Your task to perform on an android device: change keyboard looks Image 0: 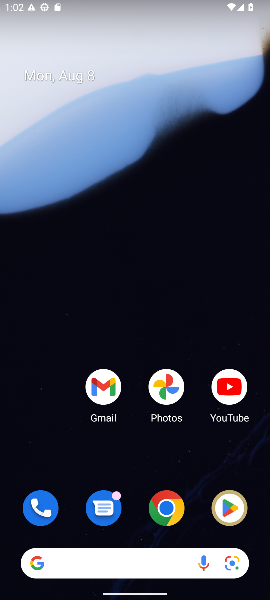
Step 0: drag from (130, 357) to (120, 69)
Your task to perform on an android device: change keyboard looks Image 1: 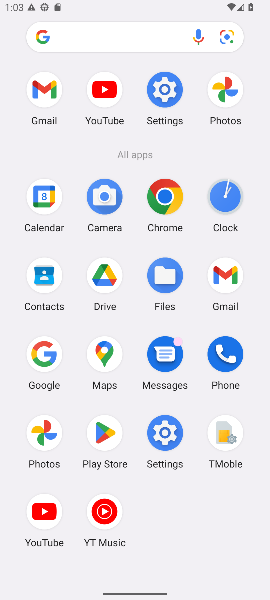
Step 1: click (165, 442)
Your task to perform on an android device: change keyboard looks Image 2: 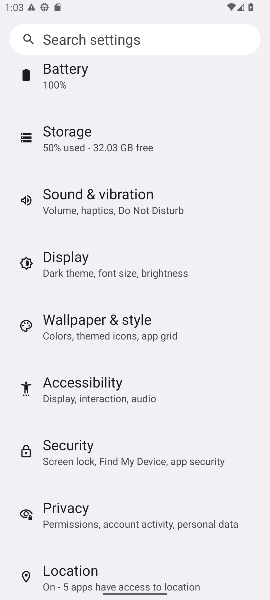
Step 2: drag from (84, 520) to (102, 289)
Your task to perform on an android device: change keyboard looks Image 3: 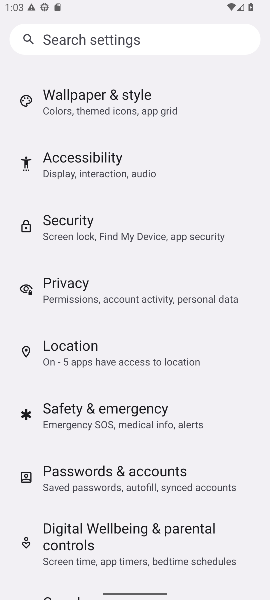
Step 3: drag from (155, 552) to (151, 246)
Your task to perform on an android device: change keyboard looks Image 4: 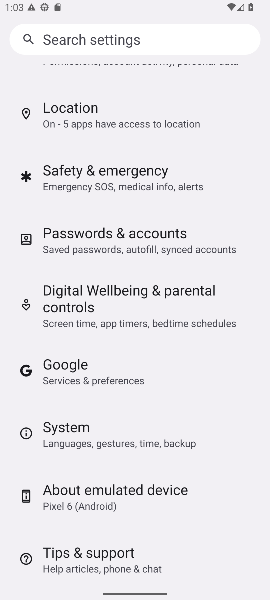
Step 4: click (75, 528)
Your task to perform on an android device: change keyboard looks Image 5: 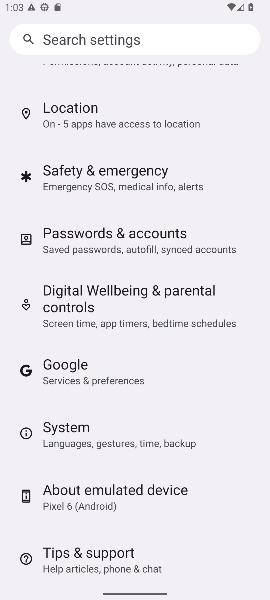
Step 5: drag from (73, 162) to (89, 352)
Your task to perform on an android device: change keyboard looks Image 6: 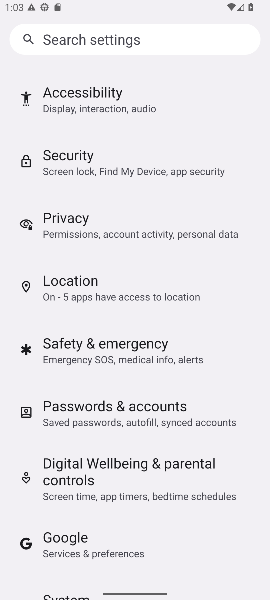
Step 6: drag from (107, 242) to (110, 307)
Your task to perform on an android device: change keyboard looks Image 7: 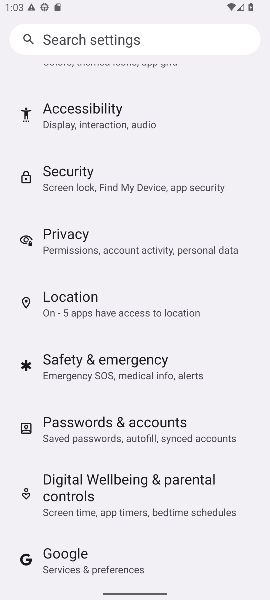
Step 7: click (136, 390)
Your task to perform on an android device: change keyboard looks Image 8: 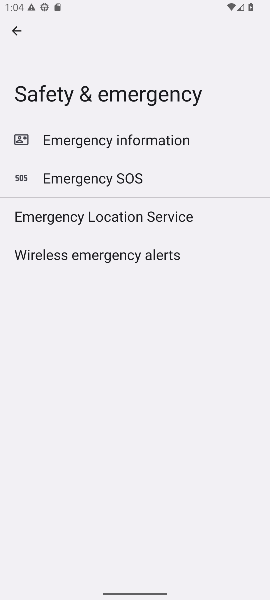
Step 8: click (15, 27)
Your task to perform on an android device: change keyboard looks Image 9: 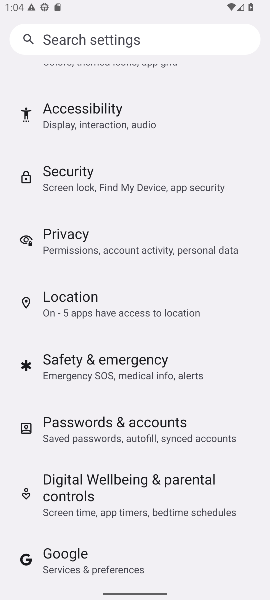
Step 9: drag from (100, 156) to (100, 420)
Your task to perform on an android device: change keyboard looks Image 10: 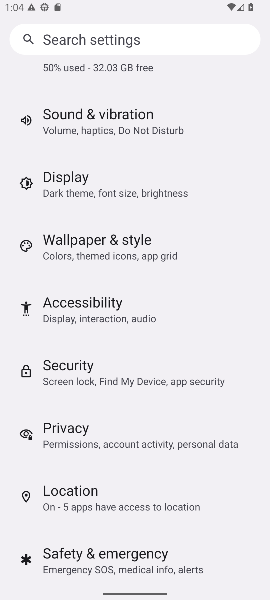
Step 10: drag from (118, 83) to (115, 435)
Your task to perform on an android device: change keyboard looks Image 11: 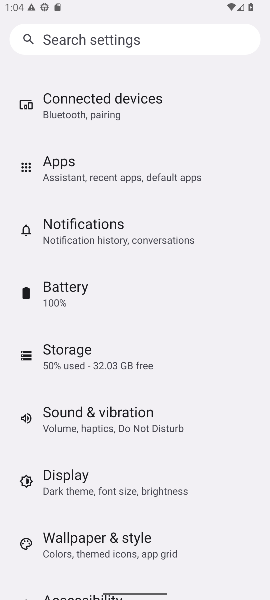
Step 11: drag from (124, 147) to (85, 337)
Your task to perform on an android device: change keyboard looks Image 12: 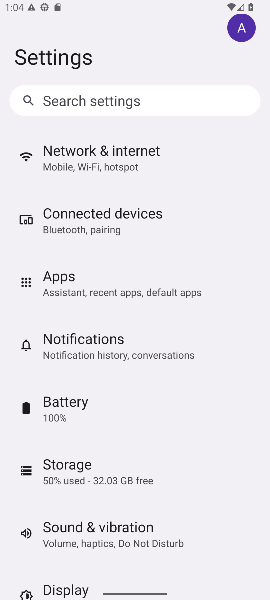
Step 12: drag from (79, 465) to (135, 82)
Your task to perform on an android device: change keyboard looks Image 13: 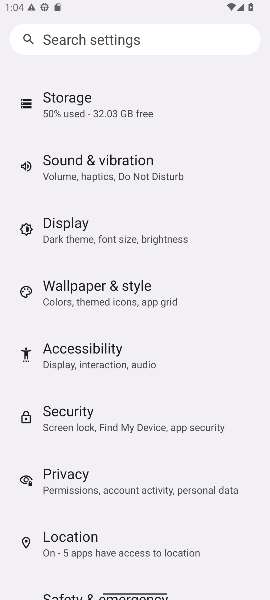
Step 13: drag from (89, 504) to (163, 196)
Your task to perform on an android device: change keyboard looks Image 14: 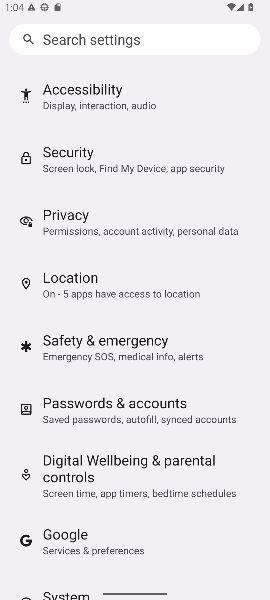
Step 14: drag from (111, 532) to (148, 272)
Your task to perform on an android device: change keyboard looks Image 15: 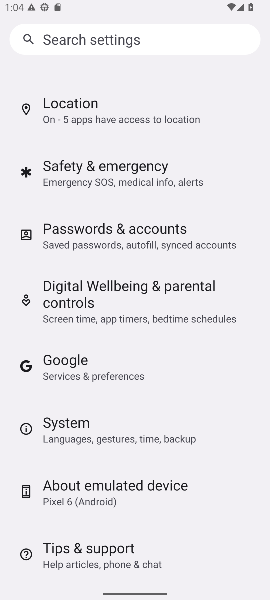
Step 15: click (72, 427)
Your task to perform on an android device: change keyboard looks Image 16: 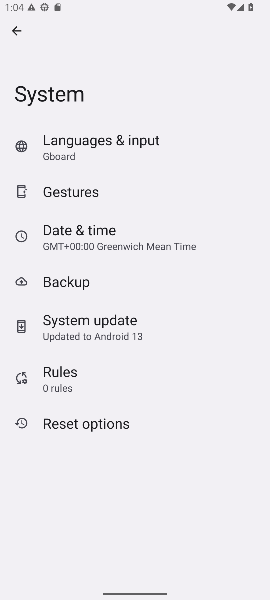
Step 16: click (60, 154)
Your task to perform on an android device: change keyboard looks Image 17: 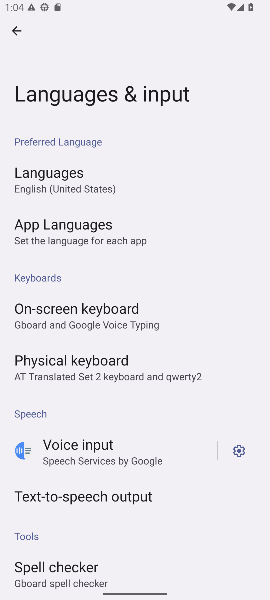
Step 17: click (54, 320)
Your task to perform on an android device: change keyboard looks Image 18: 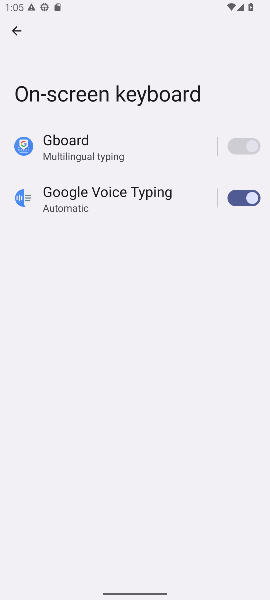
Step 18: click (104, 155)
Your task to perform on an android device: change keyboard looks Image 19: 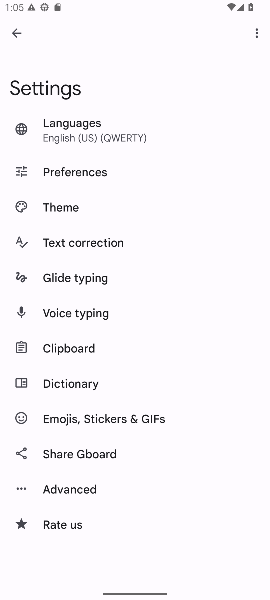
Step 19: click (57, 207)
Your task to perform on an android device: change keyboard looks Image 20: 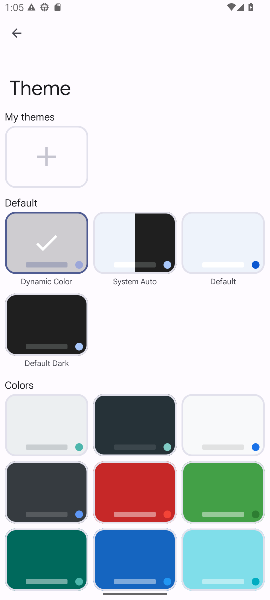
Step 20: click (122, 234)
Your task to perform on an android device: change keyboard looks Image 21: 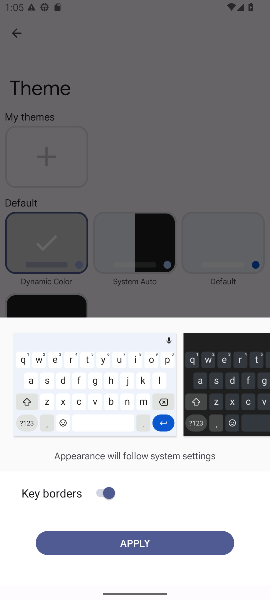
Step 21: click (145, 534)
Your task to perform on an android device: change keyboard looks Image 22: 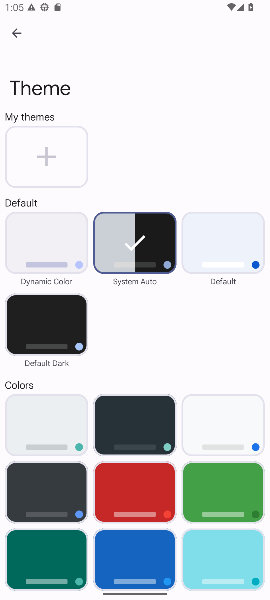
Step 22: task complete